Your task to perform on an android device: Open the calendar app, open the side menu, and click the "Day" option Image 0: 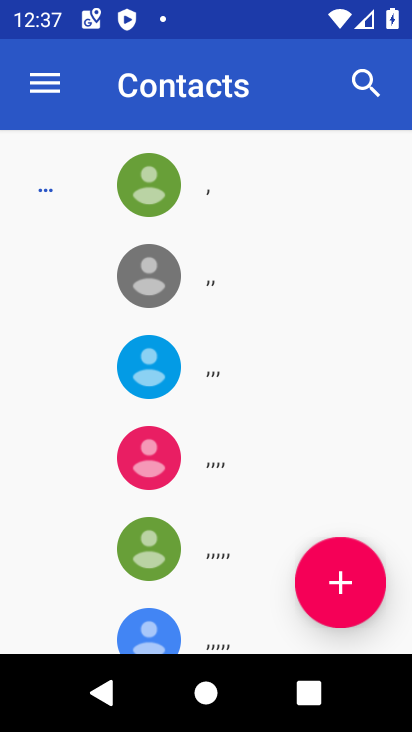
Step 0: press home button
Your task to perform on an android device: Open the calendar app, open the side menu, and click the "Day" option Image 1: 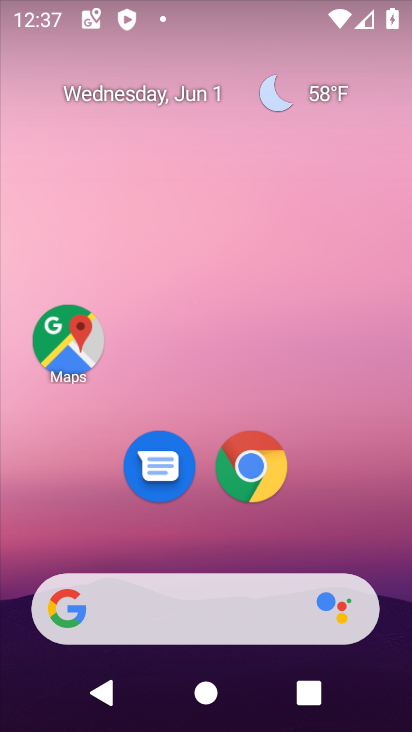
Step 1: drag from (400, 549) to (310, 118)
Your task to perform on an android device: Open the calendar app, open the side menu, and click the "Day" option Image 2: 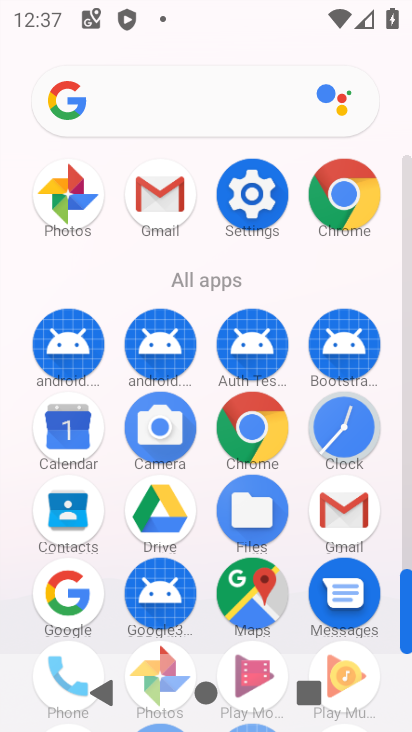
Step 2: click (68, 417)
Your task to perform on an android device: Open the calendar app, open the side menu, and click the "Day" option Image 3: 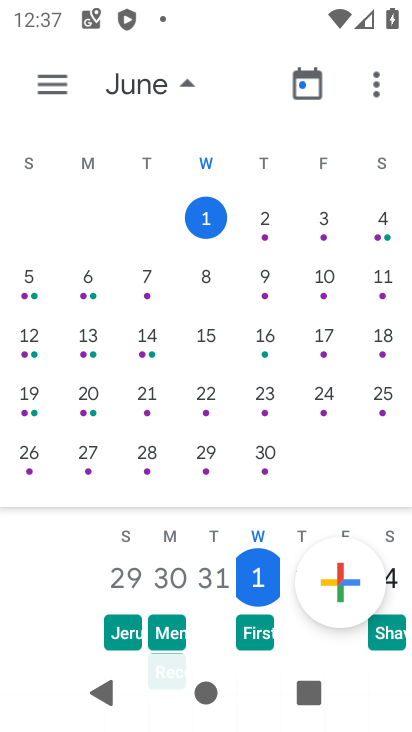
Step 3: click (54, 87)
Your task to perform on an android device: Open the calendar app, open the side menu, and click the "Day" option Image 4: 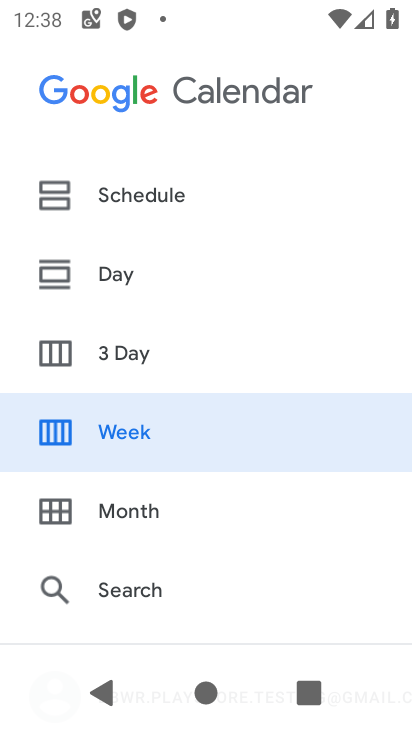
Step 4: click (126, 261)
Your task to perform on an android device: Open the calendar app, open the side menu, and click the "Day" option Image 5: 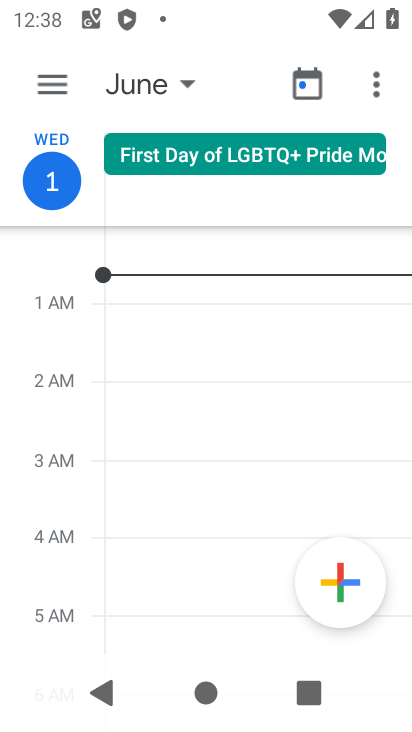
Step 5: task complete